Your task to perform on an android device: change text size in settings app Image 0: 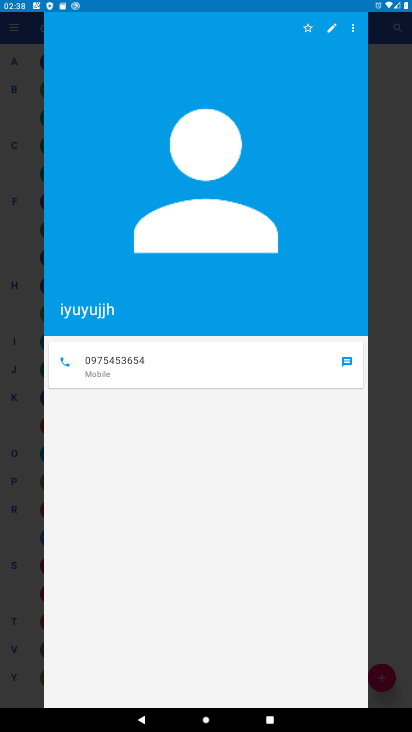
Step 0: press home button
Your task to perform on an android device: change text size in settings app Image 1: 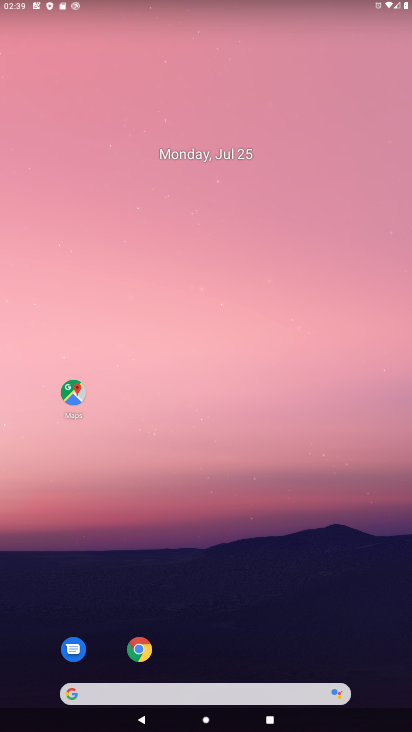
Step 1: drag from (365, 656) to (328, 206)
Your task to perform on an android device: change text size in settings app Image 2: 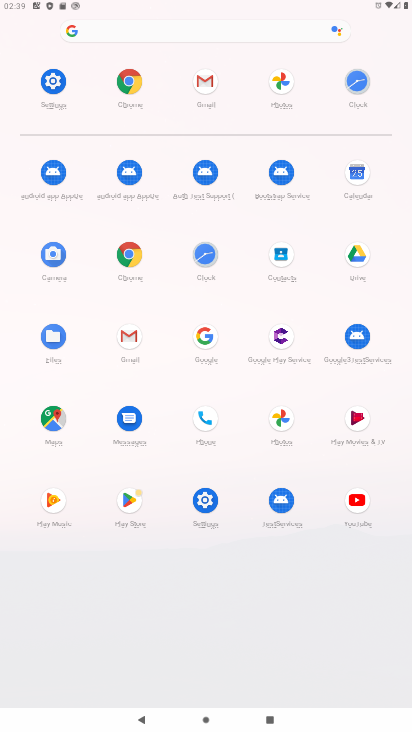
Step 2: click (205, 499)
Your task to perform on an android device: change text size in settings app Image 3: 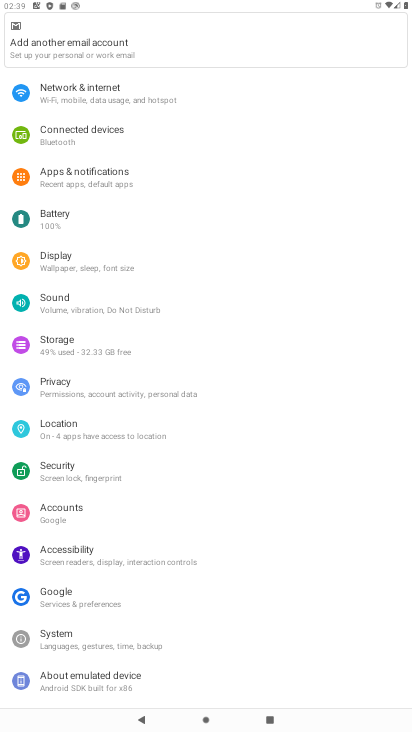
Step 3: click (80, 263)
Your task to perform on an android device: change text size in settings app Image 4: 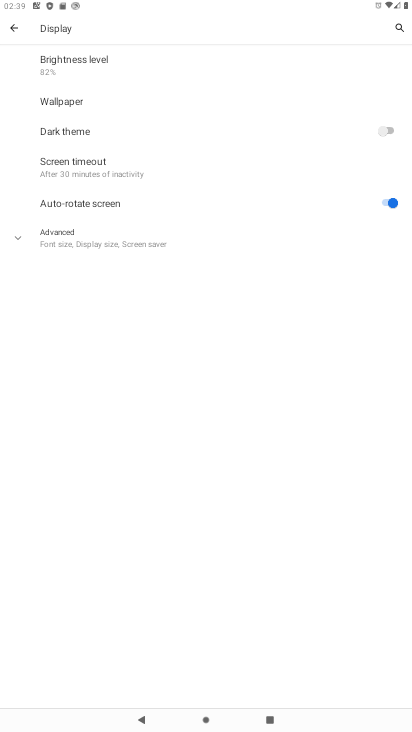
Step 4: click (13, 237)
Your task to perform on an android device: change text size in settings app Image 5: 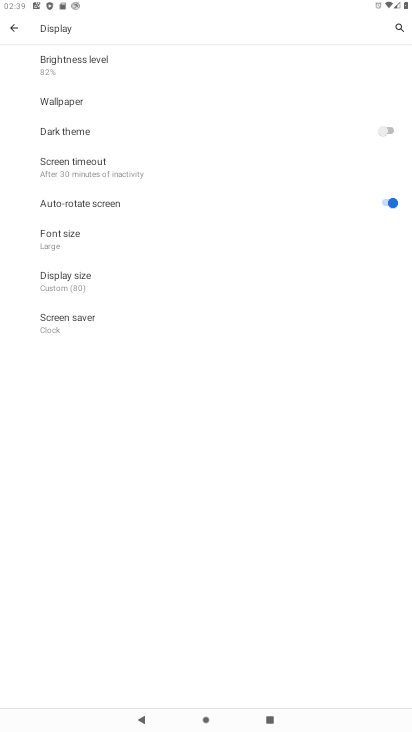
Step 5: click (58, 239)
Your task to perform on an android device: change text size in settings app Image 6: 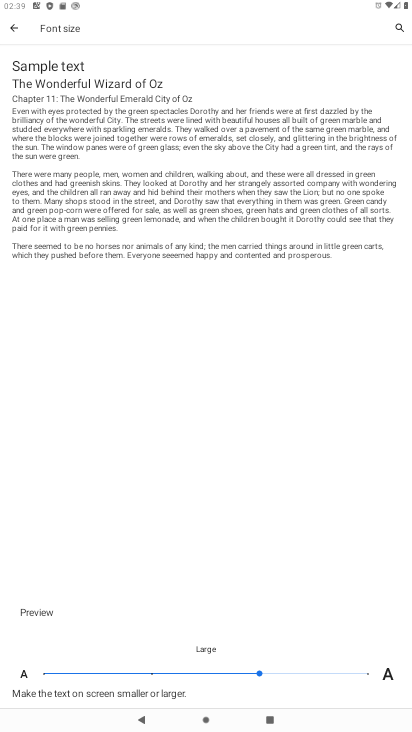
Step 6: click (364, 672)
Your task to perform on an android device: change text size in settings app Image 7: 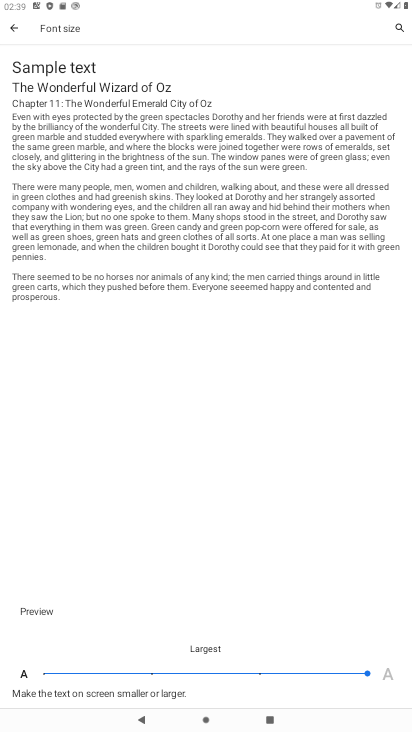
Step 7: task complete